Your task to perform on an android device: change the clock display to digital Image 0: 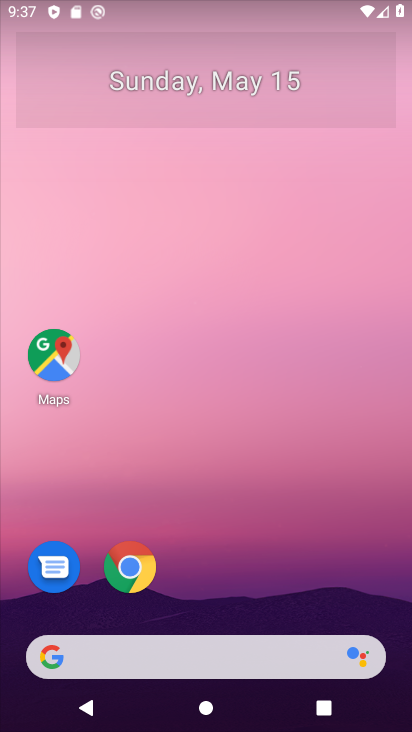
Step 0: drag from (275, 578) to (278, 104)
Your task to perform on an android device: change the clock display to digital Image 1: 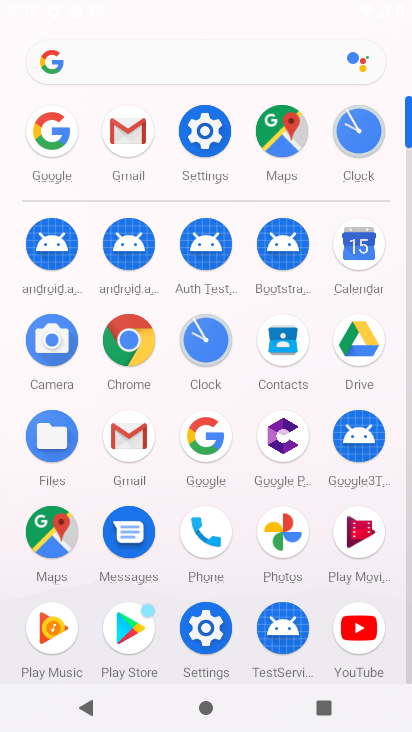
Step 1: click (222, 339)
Your task to perform on an android device: change the clock display to digital Image 2: 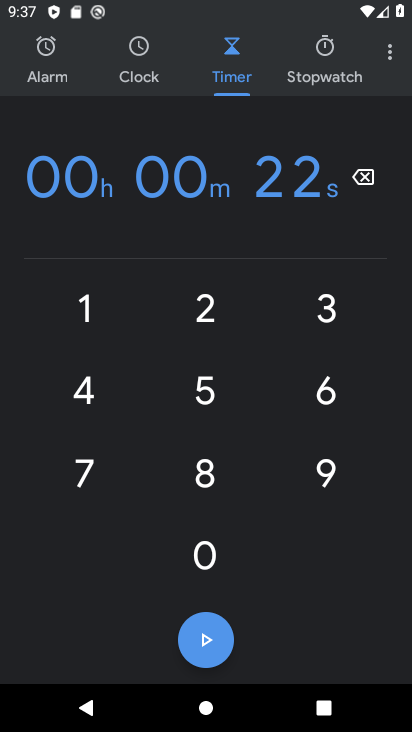
Step 2: click (384, 54)
Your task to perform on an android device: change the clock display to digital Image 3: 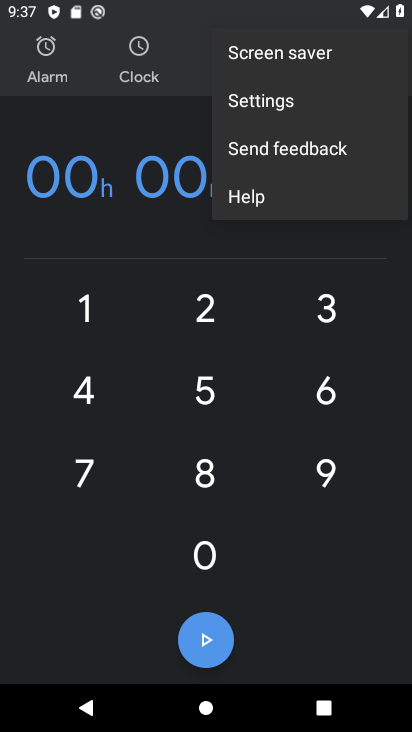
Step 3: click (298, 95)
Your task to perform on an android device: change the clock display to digital Image 4: 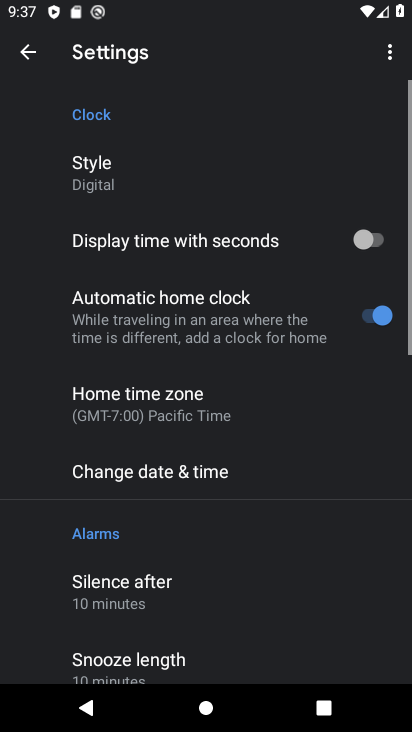
Step 4: click (151, 176)
Your task to perform on an android device: change the clock display to digital Image 5: 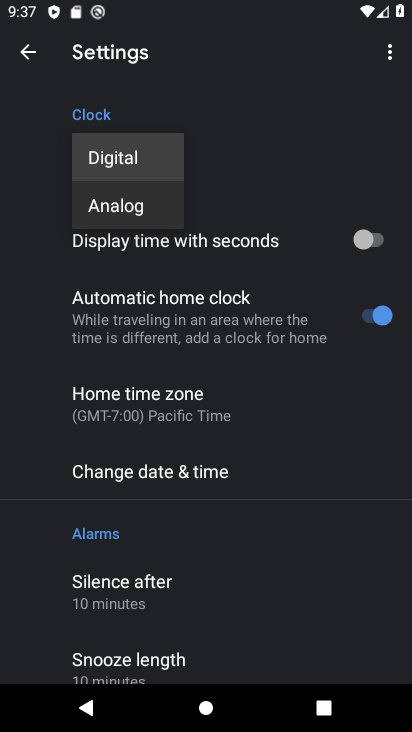
Step 5: click (130, 163)
Your task to perform on an android device: change the clock display to digital Image 6: 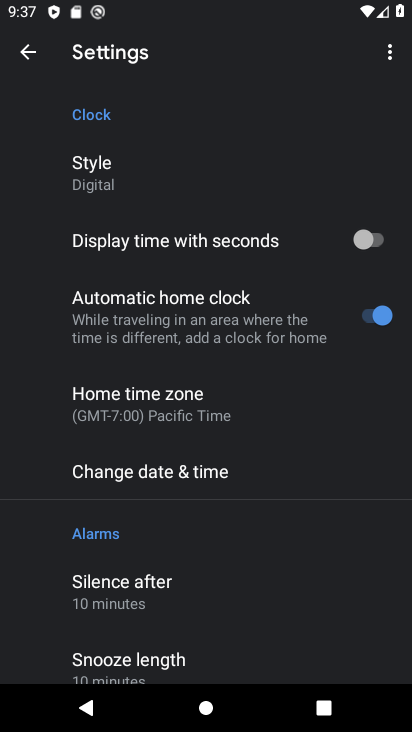
Step 6: task complete